Your task to perform on an android device: star an email in the gmail app Image 0: 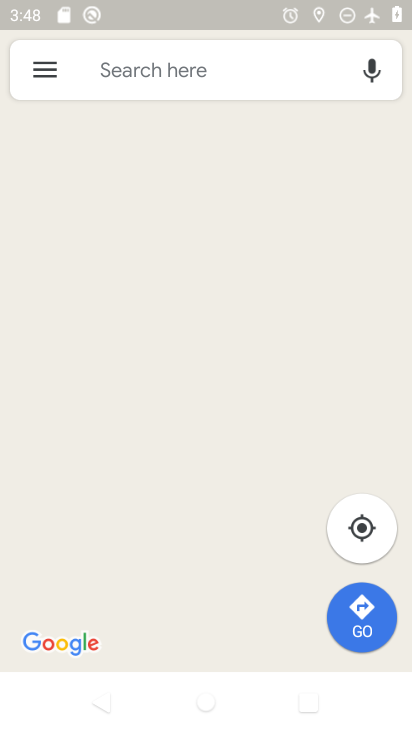
Step 0: press home button
Your task to perform on an android device: star an email in the gmail app Image 1: 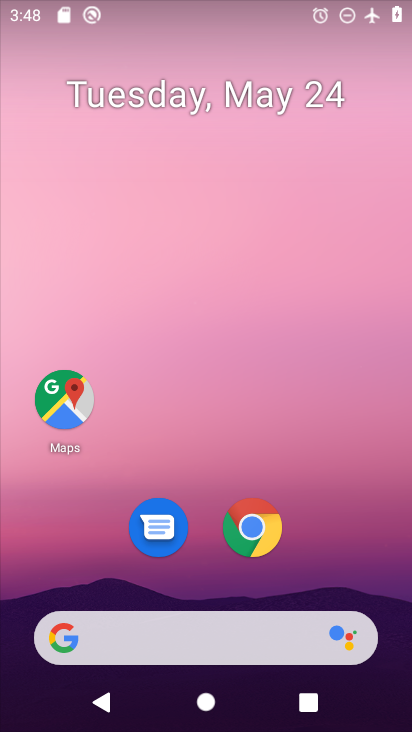
Step 1: drag from (200, 438) to (191, 22)
Your task to perform on an android device: star an email in the gmail app Image 2: 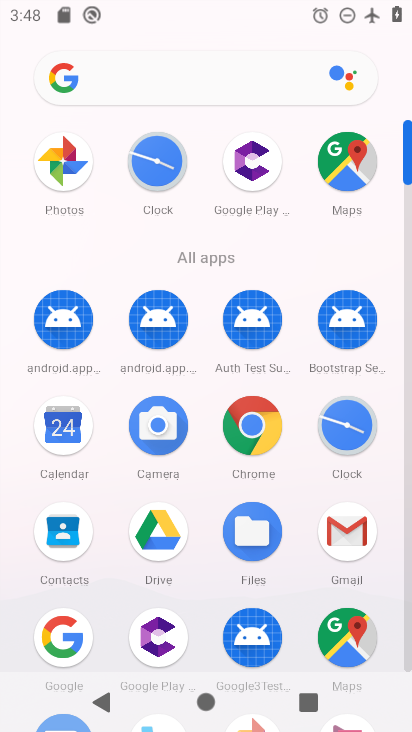
Step 2: click (345, 530)
Your task to perform on an android device: star an email in the gmail app Image 3: 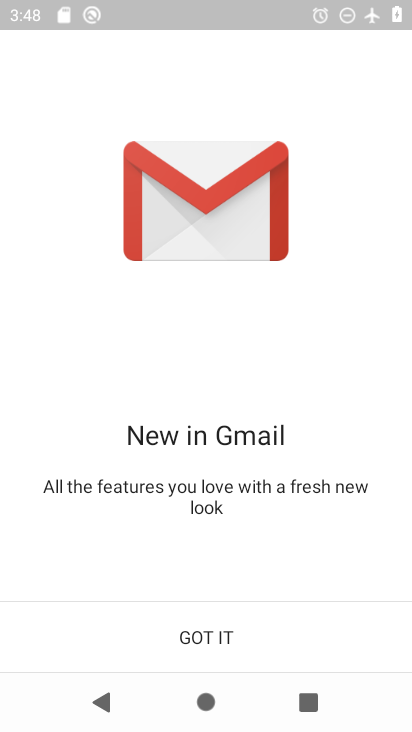
Step 3: click (268, 617)
Your task to perform on an android device: star an email in the gmail app Image 4: 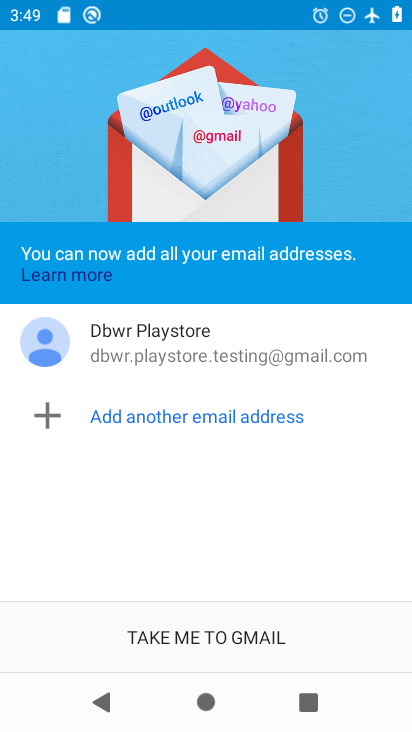
Step 4: click (225, 648)
Your task to perform on an android device: star an email in the gmail app Image 5: 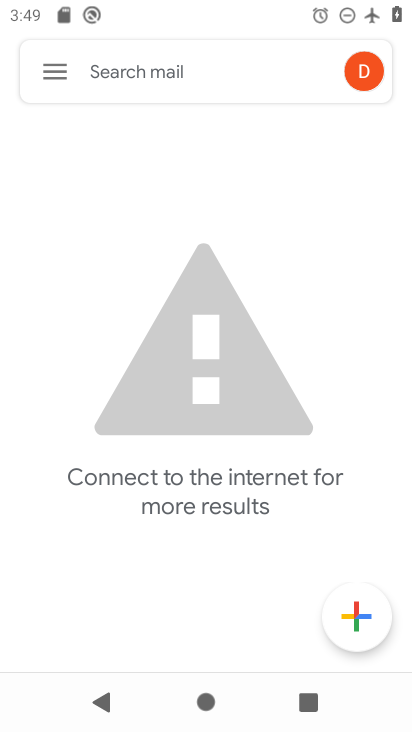
Step 5: drag from (250, 17) to (89, 682)
Your task to perform on an android device: star an email in the gmail app Image 6: 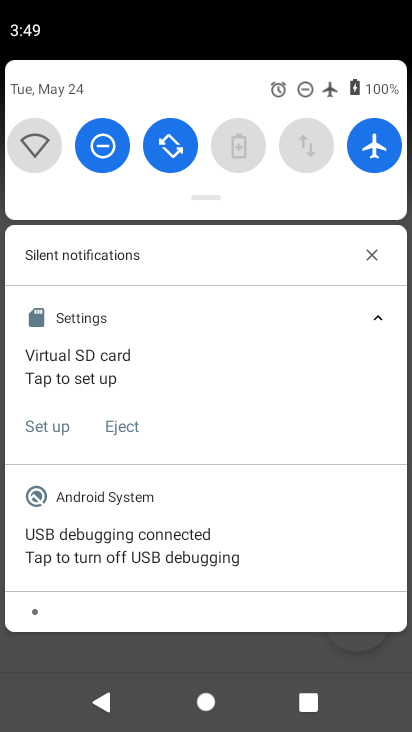
Step 6: click (355, 160)
Your task to perform on an android device: star an email in the gmail app Image 7: 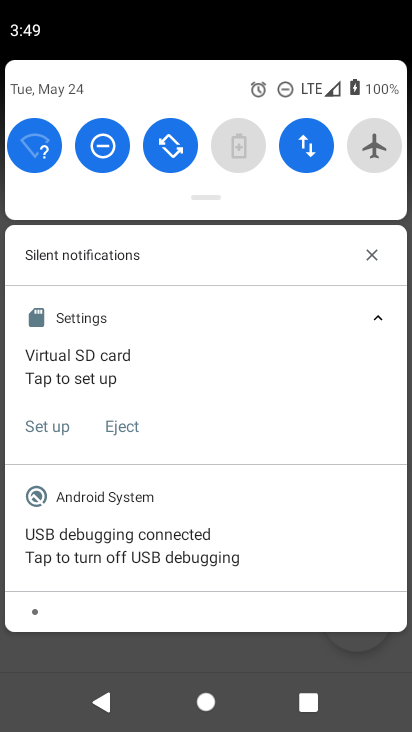
Step 7: task complete